Your task to perform on an android device: search for starred emails in the gmail app Image 0: 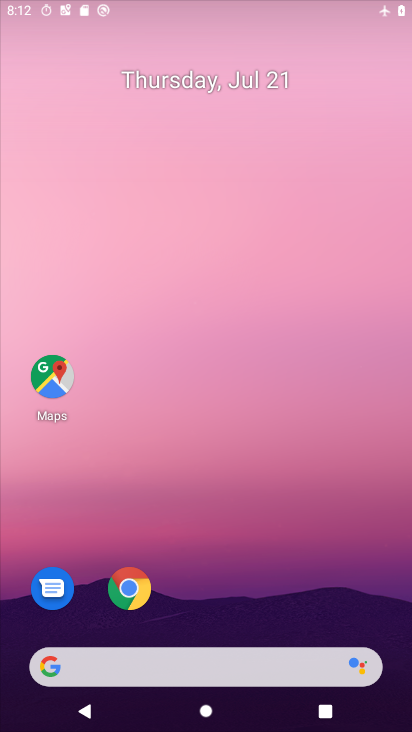
Step 0: drag from (267, 569) to (264, 288)
Your task to perform on an android device: search for starred emails in the gmail app Image 1: 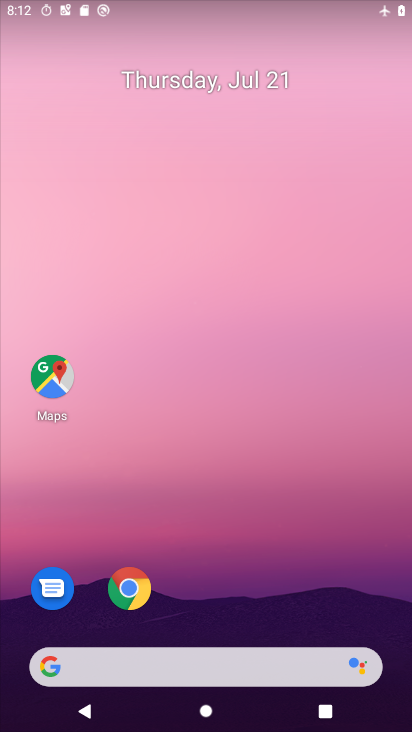
Step 1: drag from (251, 666) to (199, 193)
Your task to perform on an android device: search for starred emails in the gmail app Image 2: 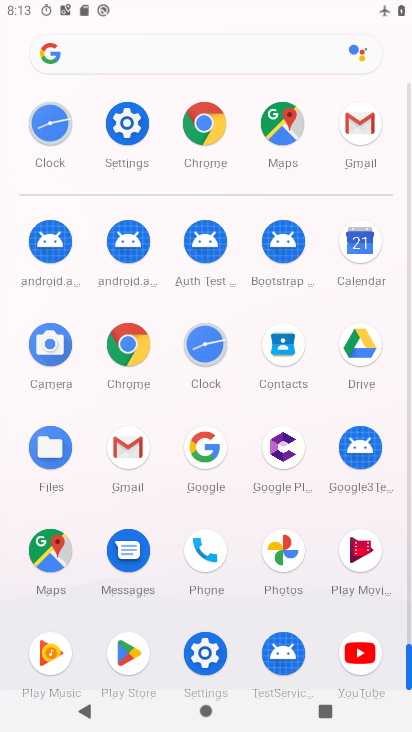
Step 2: click (132, 451)
Your task to perform on an android device: search for starred emails in the gmail app Image 3: 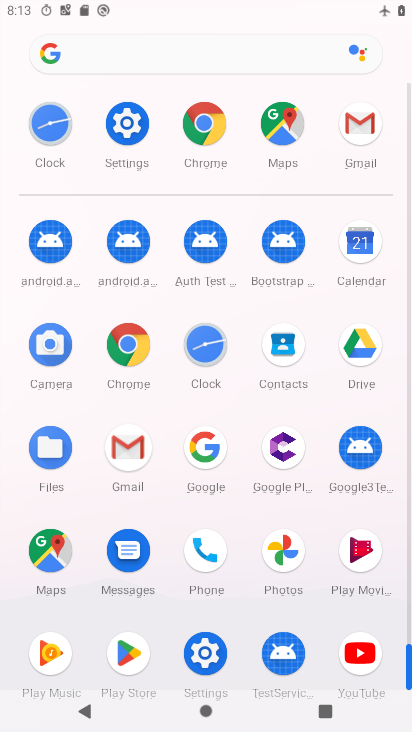
Step 3: click (132, 453)
Your task to perform on an android device: search for starred emails in the gmail app Image 4: 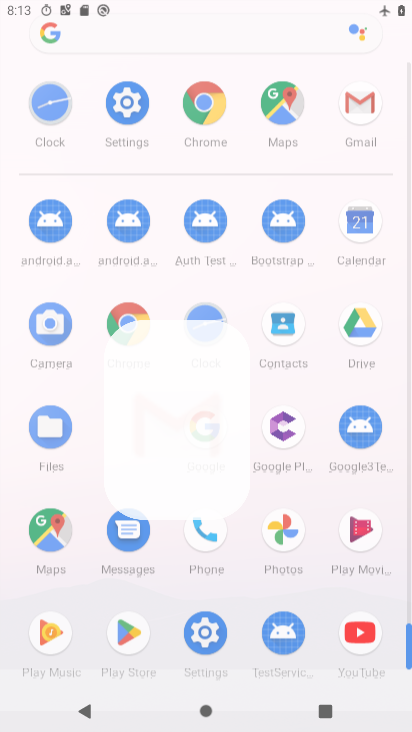
Step 4: click (132, 454)
Your task to perform on an android device: search for starred emails in the gmail app Image 5: 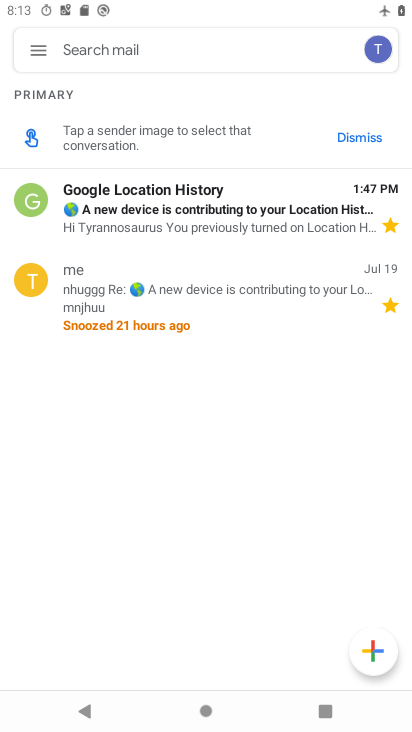
Step 5: task complete